Your task to perform on an android device: turn on wifi Image 0: 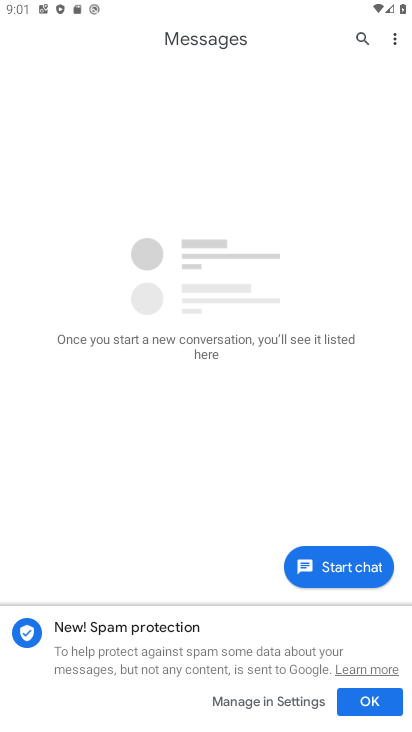
Step 0: press back button
Your task to perform on an android device: turn on wifi Image 1: 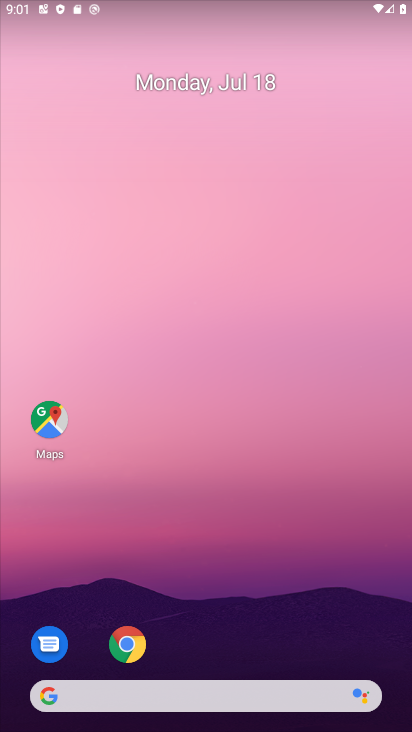
Step 1: task complete